Your task to perform on an android device: turn off airplane mode Image 0: 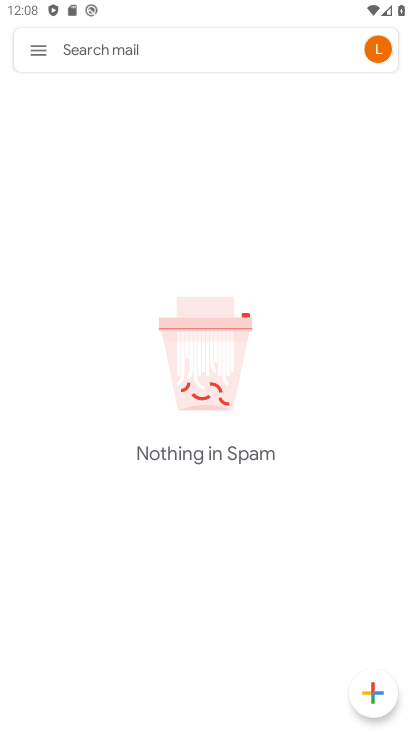
Step 0: press home button
Your task to perform on an android device: turn off airplane mode Image 1: 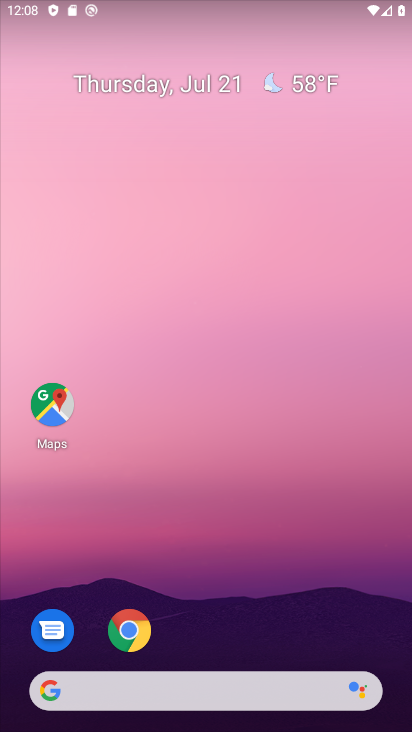
Step 1: drag from (174, 687) to (163, 122)
Your task to perform on an android device: turn off airplane mode Image 2: 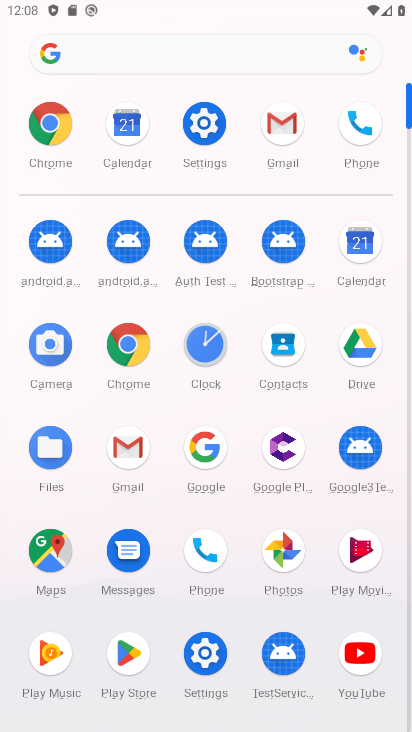
Step 2: click (196, 140)
Your task to perform on an android device: turn off airplane mode Image 3: 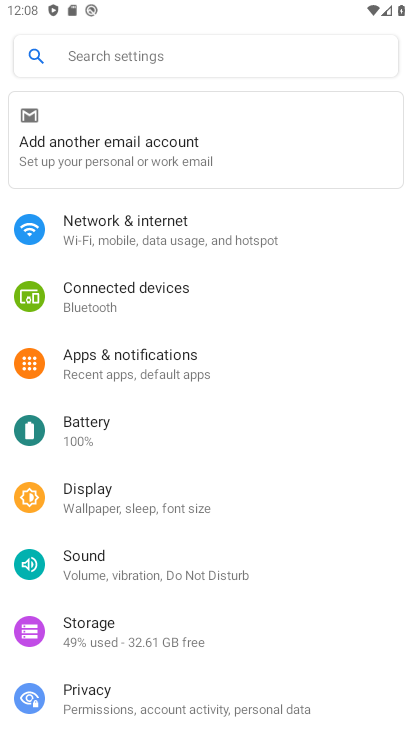
Step 3: click (107, 226)
Your task to perform on an android device: turn off airplane mode Image 4: 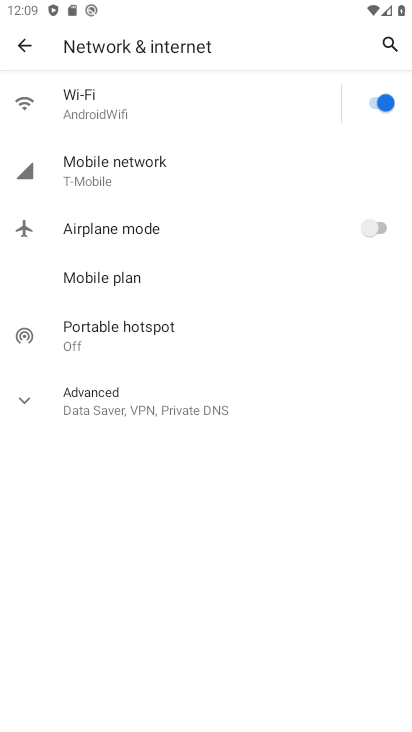
Step 4: task complete